Your task to perform on an android device: open chrome privacy settings Image 0: 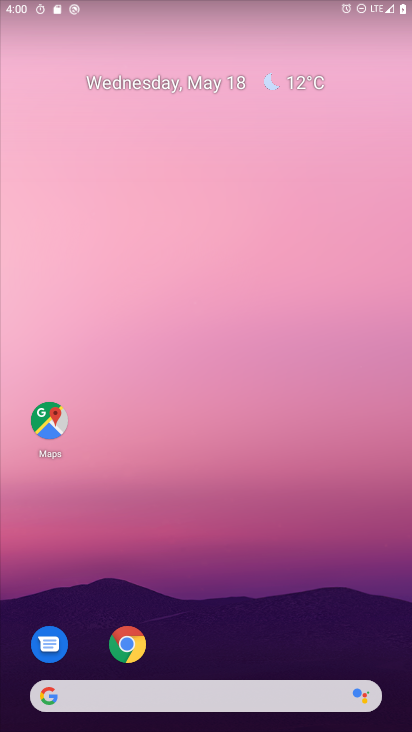
Step 0: click (124, 641)
Your task to perform on an android device: open chrome privacy settings Image 1: 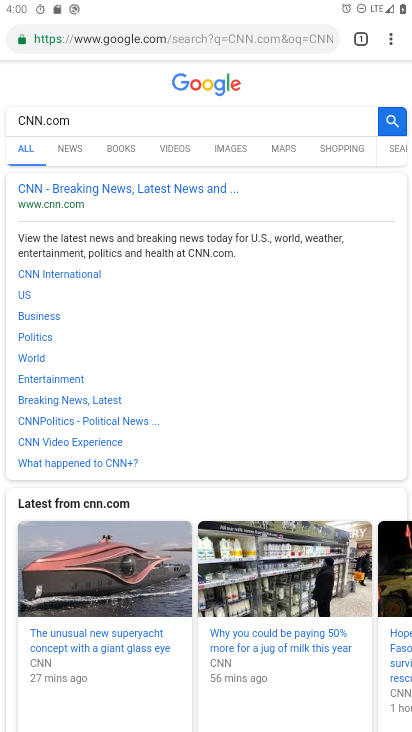
Step 1: click (390, 36)
Your task to perform on an android device: open chrome privacy settings Image 2: 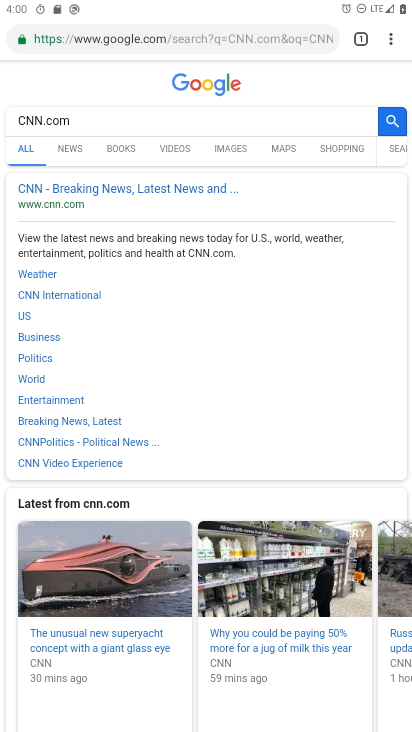
Step 2: click (390, 44)
Your task to perform on an android device: open chrome privacy settings Image 3: 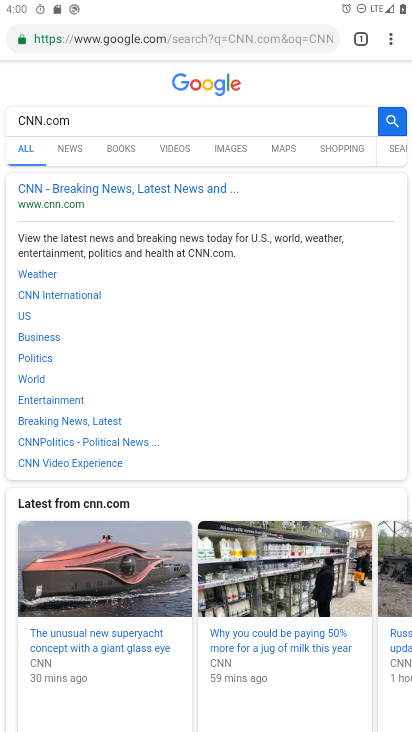
Step 3: click (386, 33)
Your task to perform on an android device: open chrome privacy settings Image 4: 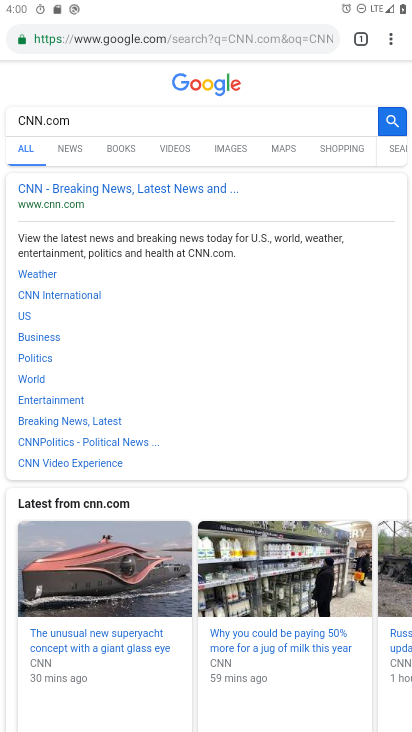
Step 4: click (392, 34)
Your task to perform on an android device: open chrome privacy settings Image 5: 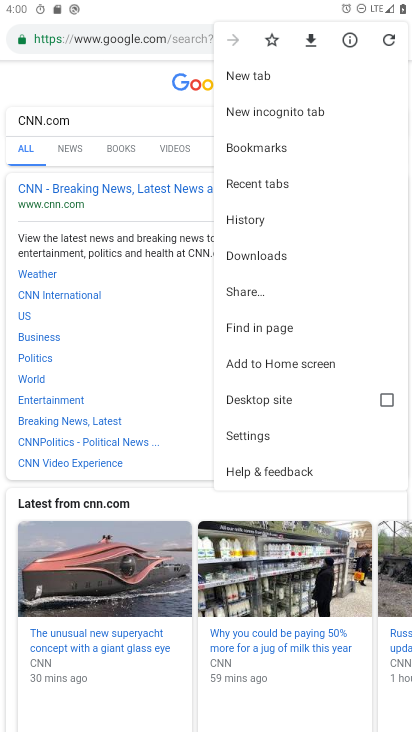
Step 5: click (247, 439)
Your task to perform on an android device: open chrome privacy settings Image 6: 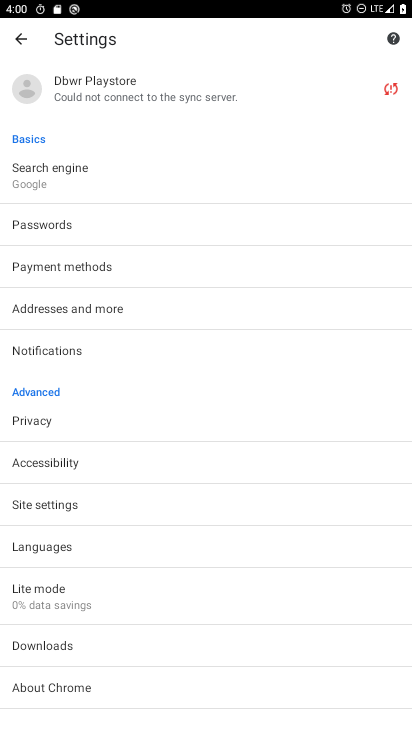
Step 6: click (44, 422)
Your task to perform on an android device: open chrome privacy settings Image 7: 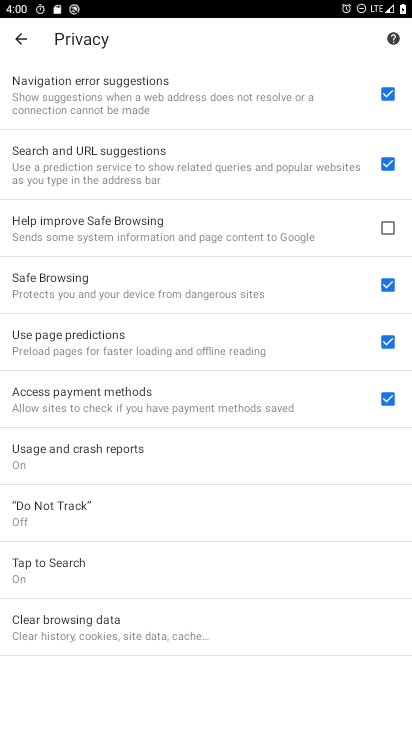
Step 7: task complete